Your task to perform on an android device: Open the web browser Image 0: 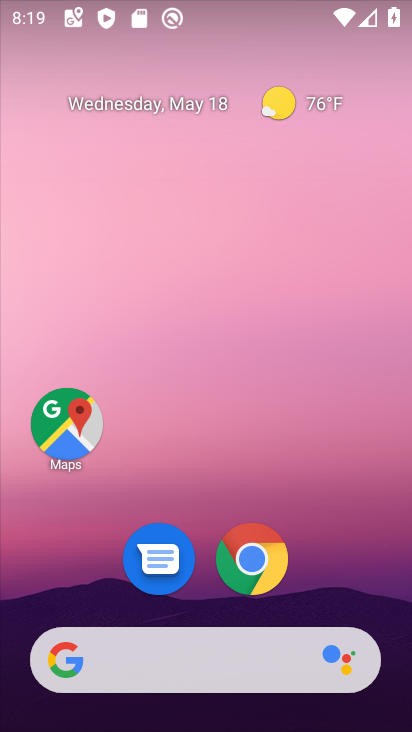
Step 0: drag from (210, 588) to (172, 105)
Your task to perform on an android device: Open the web browser Image 1: 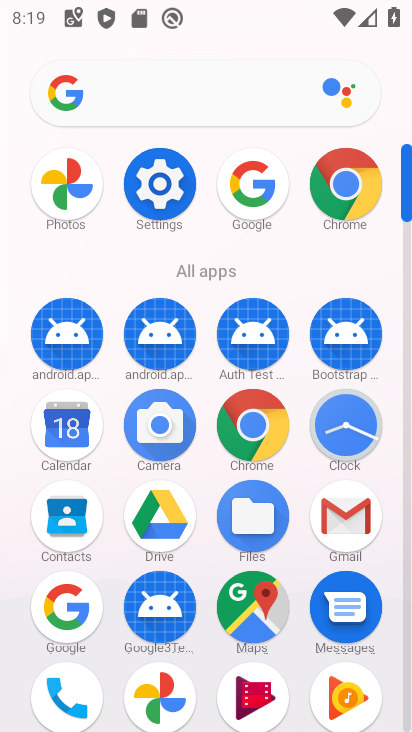
Step 1: click (252, 185)
Your task to perform on an android device: Open the web browser Image 2: 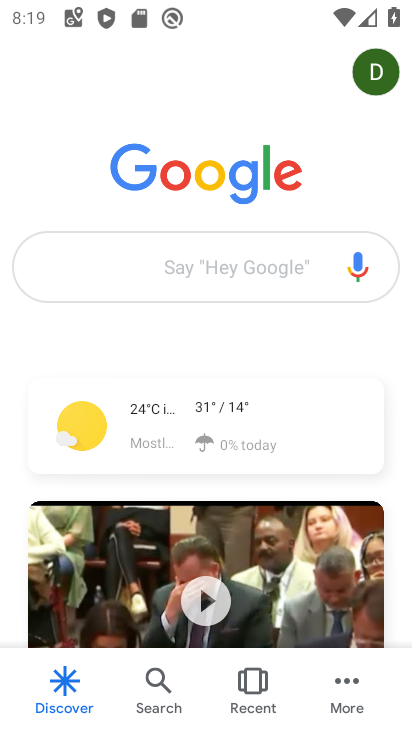
Step 2: task complete